Your task to perform on an android device: Open Youtube and go to the subscriptions tab Image 0: 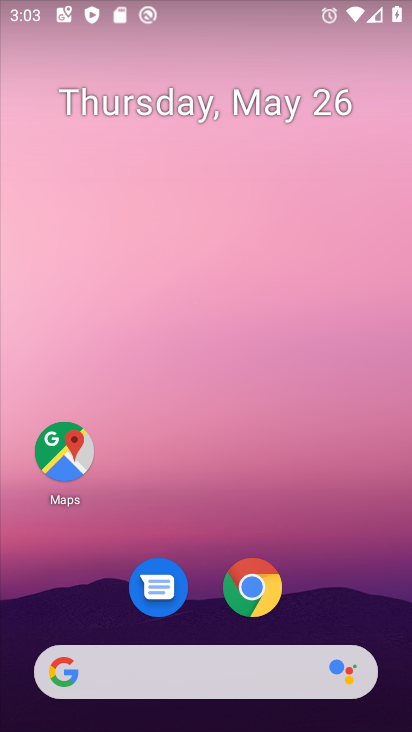
Step 0: drag from (362, 611) to (368, 235)
Your task to perform on an android device: Open Youtube and go to the subscriptions tab Image 1: 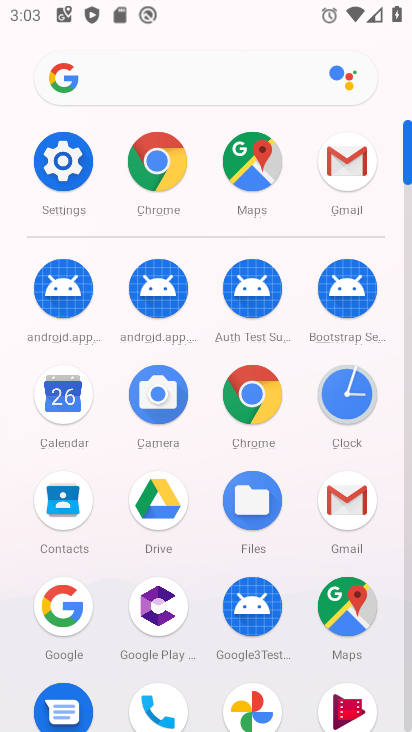
Step 1: drag from (204, 565) to (198, 246)
Your task to perform on an android device: Open Youtube and go to the subscriptions tab Image 2: 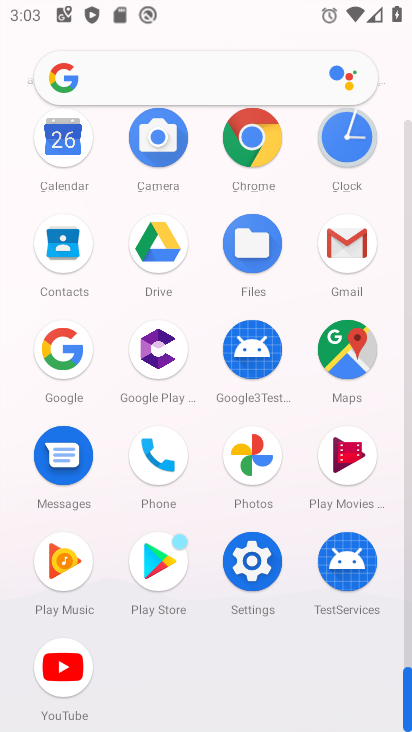
Step 2: click (75, 672)
Your task to perform on an android device: Open Youtube and go to the subscriptions tab Image 3: 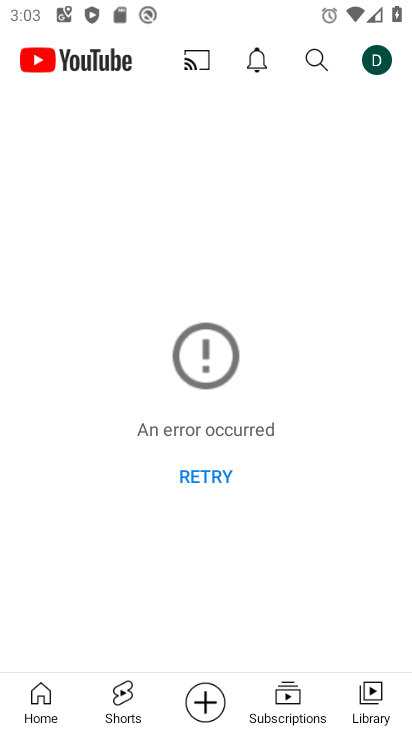
Step 3: click (288, 695)
Your task to perform on an android device: Open Youtube and go to the subscriptions tab Image 4: 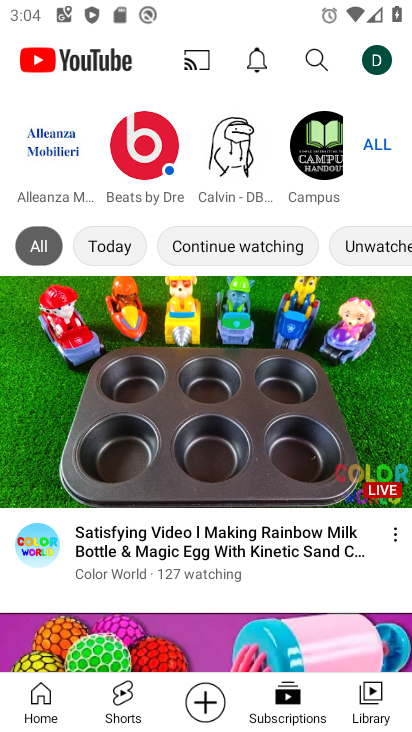
Step 4: task complete